Your task to perform on an android device: remove spam from my inbox in the gmail app Image 0: 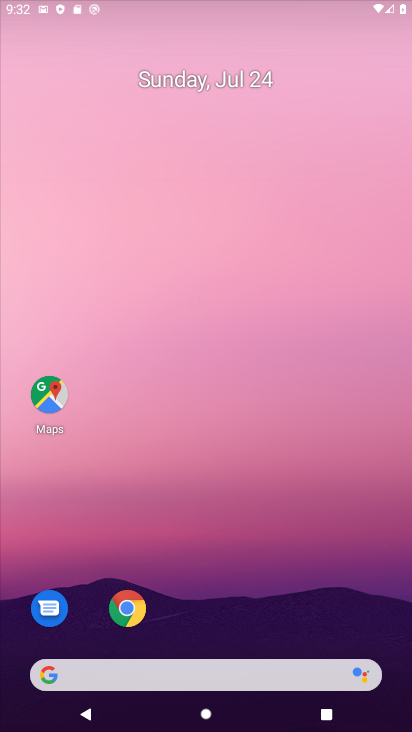
Step 0: press home button
Your task to perform on an android device: remove spam from my inbox in the gmail app Image 1: 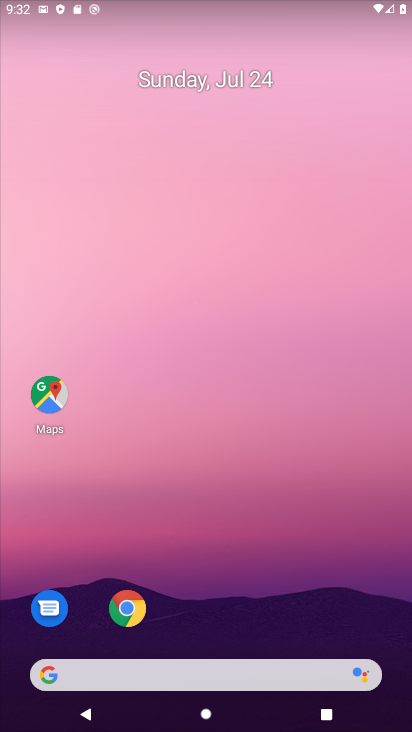
Step 1: drag from (222, 634) to (228, 14)
Your task to perform on an android device: remove spam from my inbox in the gmail app Image 2: 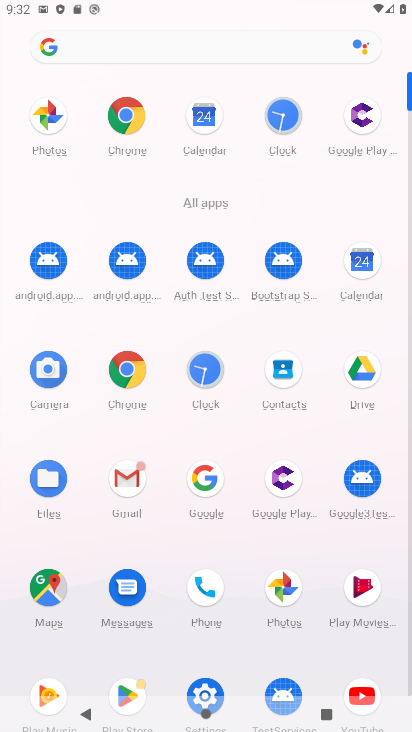
Step 2: click (125, 476)
Your task to perform on an android device: remove spam from my inbox in the gmail app Image 3: 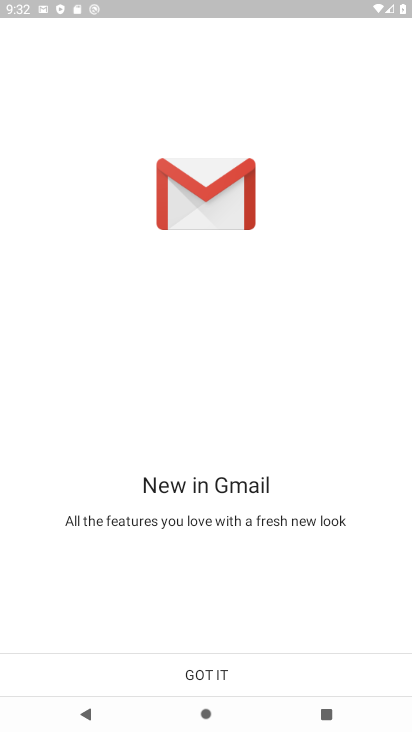
Step 3: click (211, 674)
Your task to perform on an android device: remove spam from my inbox in the gmail app Image 4: 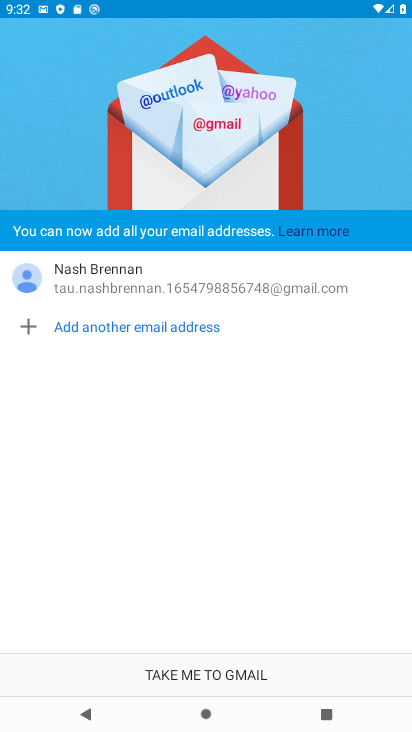
Step 4: click (199, 676)
Your task to perform on an android device: remove spam from my inbox in the gmail app Image 5: 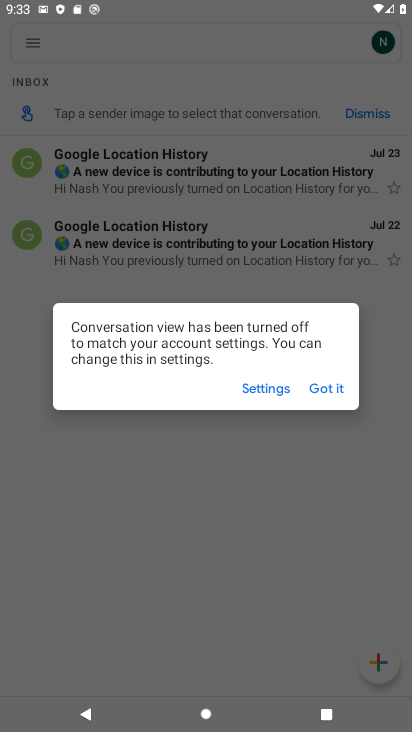
Step 5: click (314, 394)
Your task to perform on an android device: remove spam from my inbox in the gmail app Image 6: 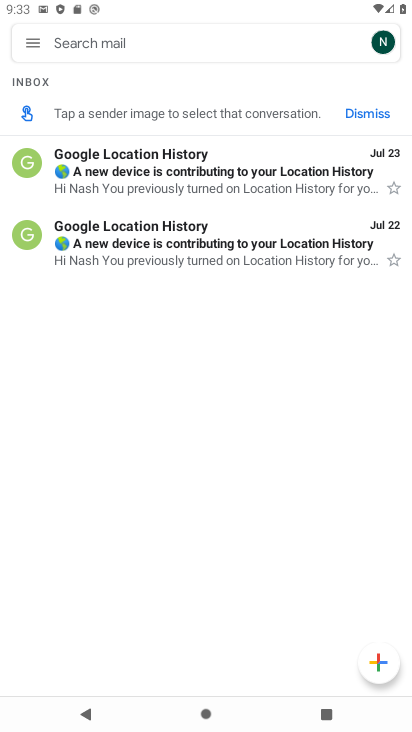
Step 6: click (30, 39)
Your task to perform on an android device: remove spam from my inbox in the gmail app Image 7: 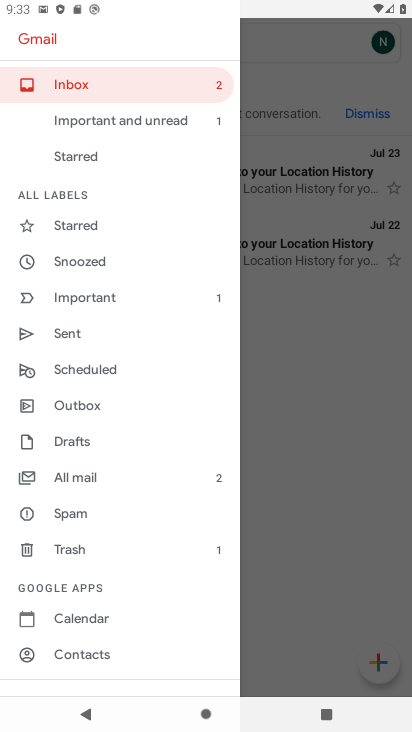
Step 7: click (90, 506)
Your task to perform on an android device: remove spam from my inbox in the gmail app Image 8: 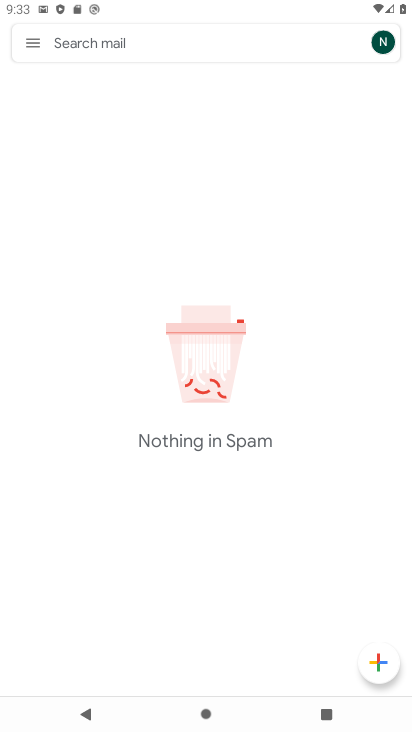
Step 8: task complete